Your task to perform on an android device: When is my next appointment? Image 0: 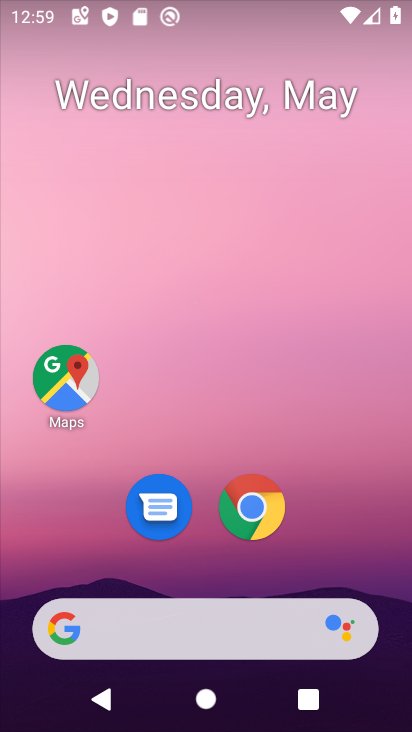
Step 0: drag from (320, 519) to (331, 147)
Your task to perform on an android device: When is my next appointment? Image 1: 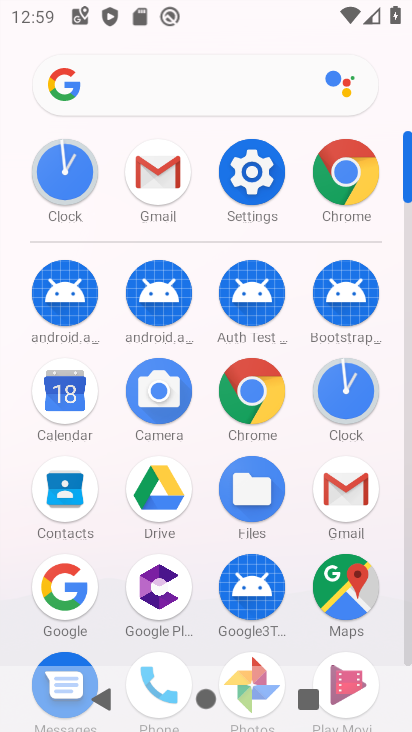
Step 1: click (71, 369)
Your task to perform on an android device: When is my next appointment? Image 2: 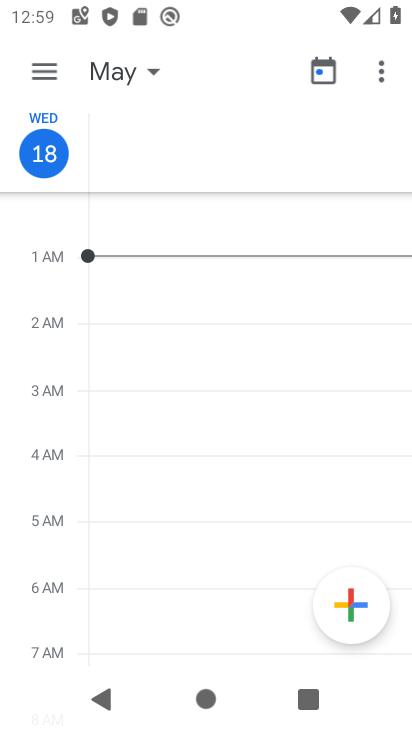
Step 2: click (46, 60)
Your task to perform on an android device: When is my next appointment? Image 3: 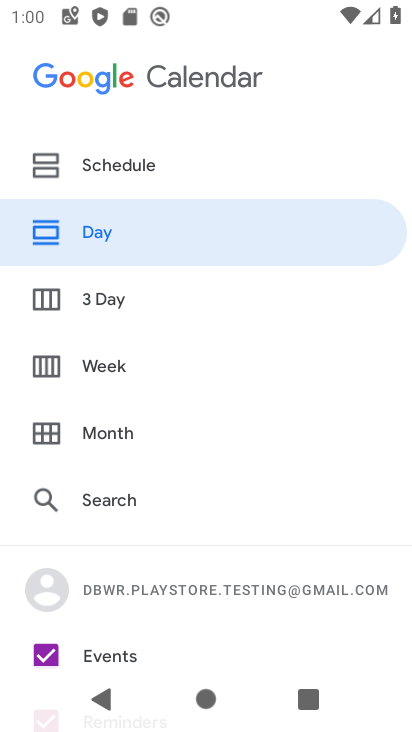
Step 3: click (103, 365)
Your task to perform on an android device: When is my next appointment? Image 4: 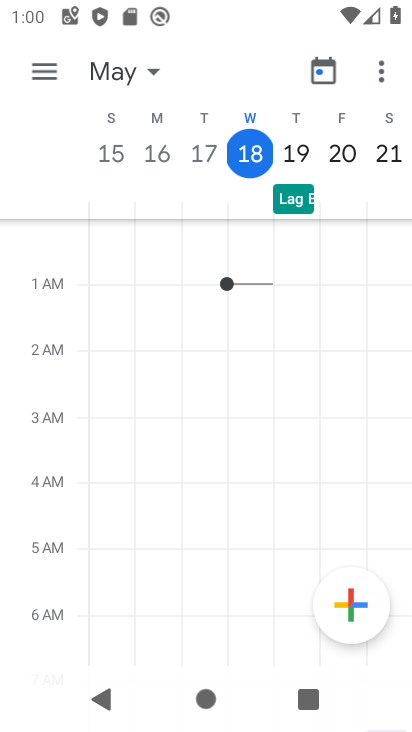
Step 4: click (303, 141)
Your task to perform on an android device: When is my next appointment? Image 5: 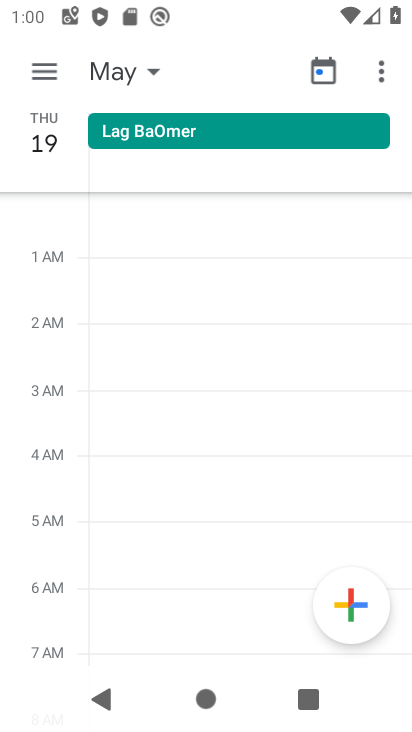
Step 5: task complete